Your task to perform on an android device: change the clock display to analog Image 0: 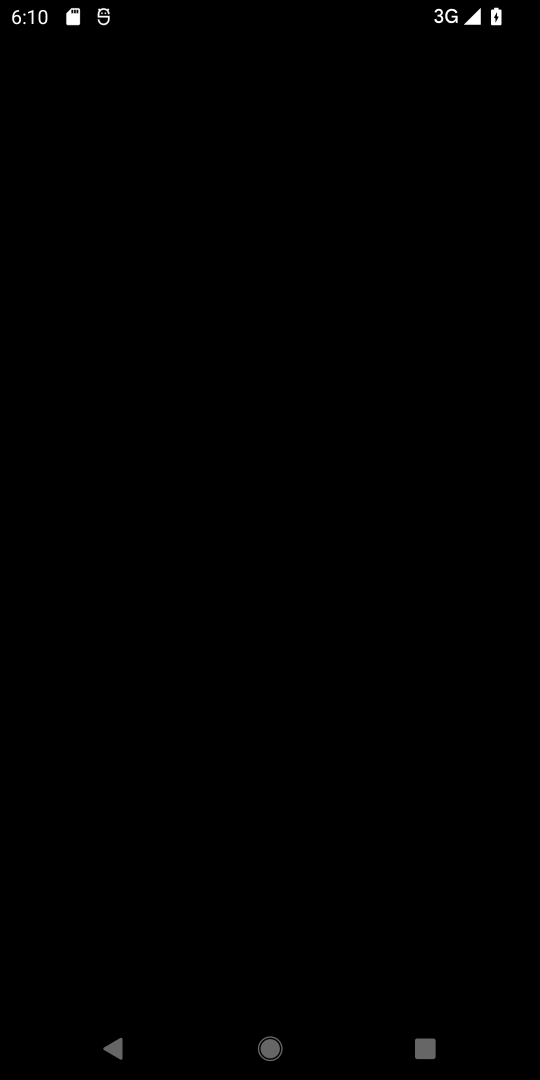
Step 0: press home button
Your task to perform on an android device: change the clock display to analog Image 1: 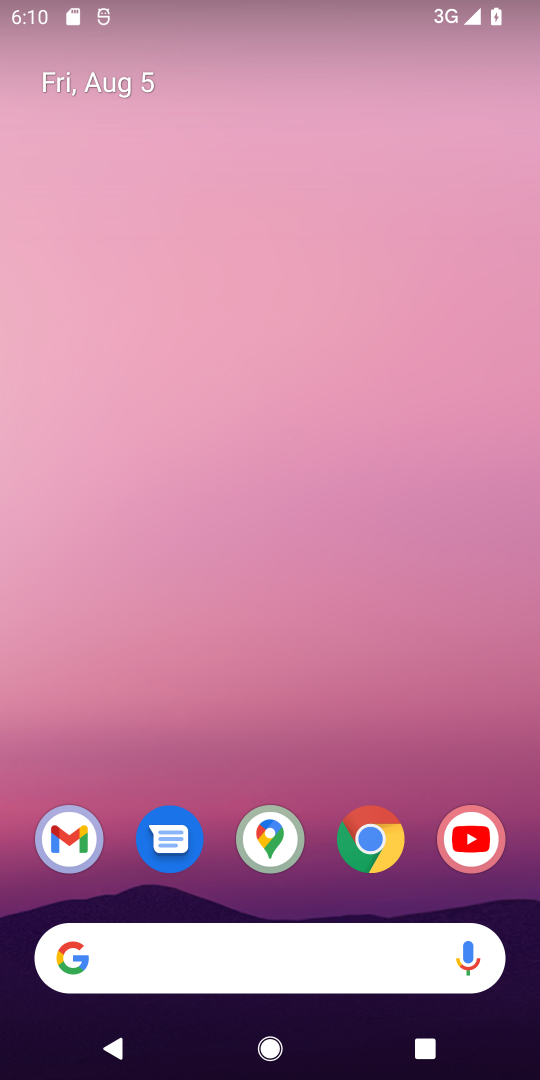
Step 1: drag from (180, 743) to (207, 45)
Your task to perform on an android device: change the clock display to analog Image 2: 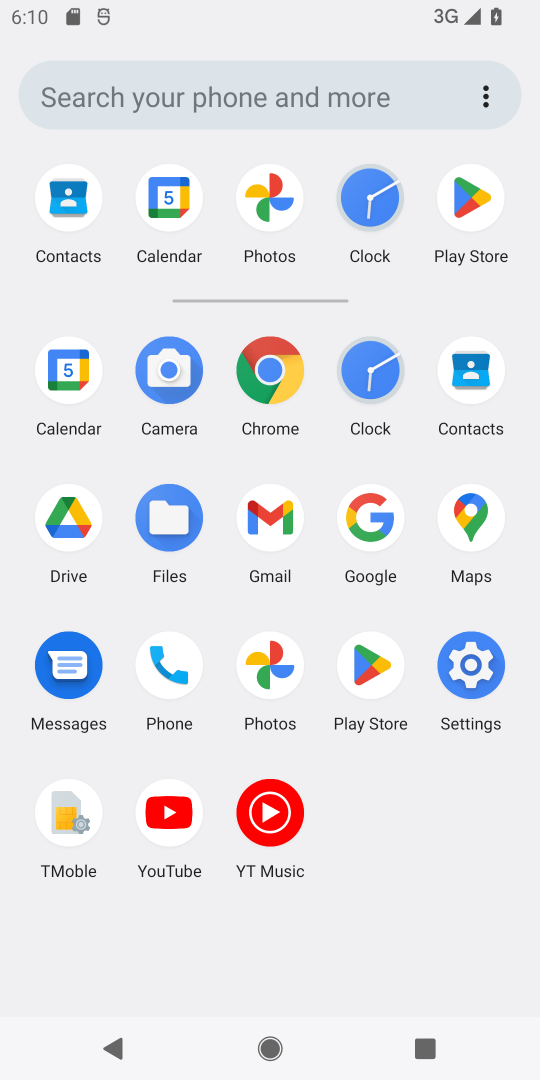
Step 2: click (353, 214)
Your task to perform on an android device: change the clock display to analog Image 3: 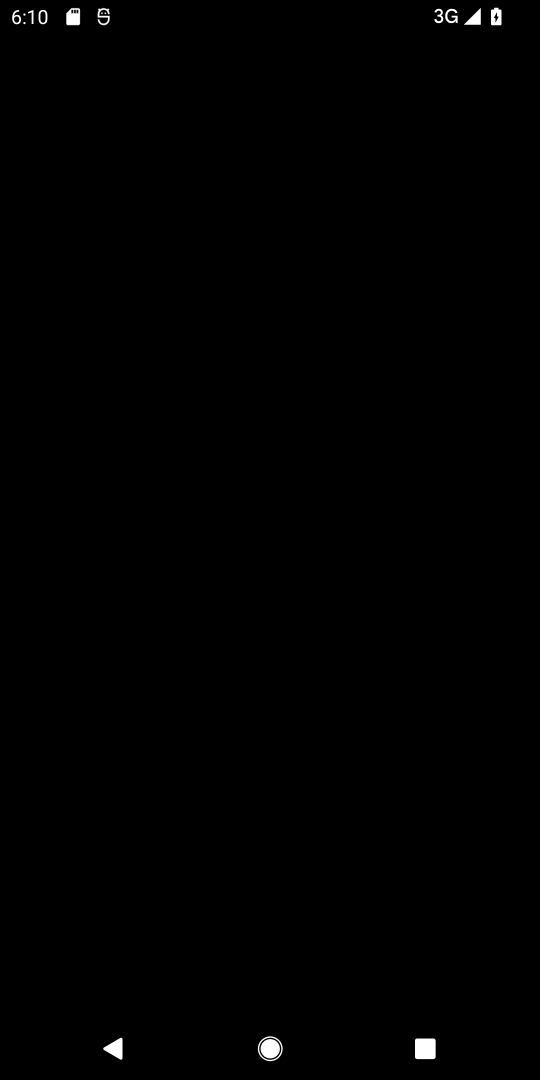
Step 3: click (502, 80)
Your task to perform on an android device: change the clock display to analog Image 4: 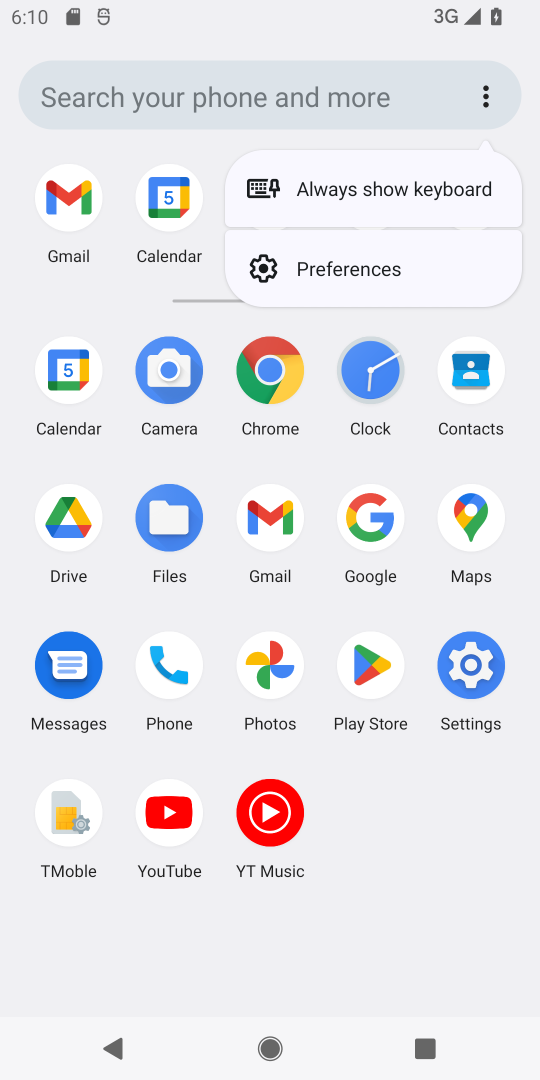
Step 4: click (331, 846)
Your task to perform on an android device: change the clock display to analog Image 5: 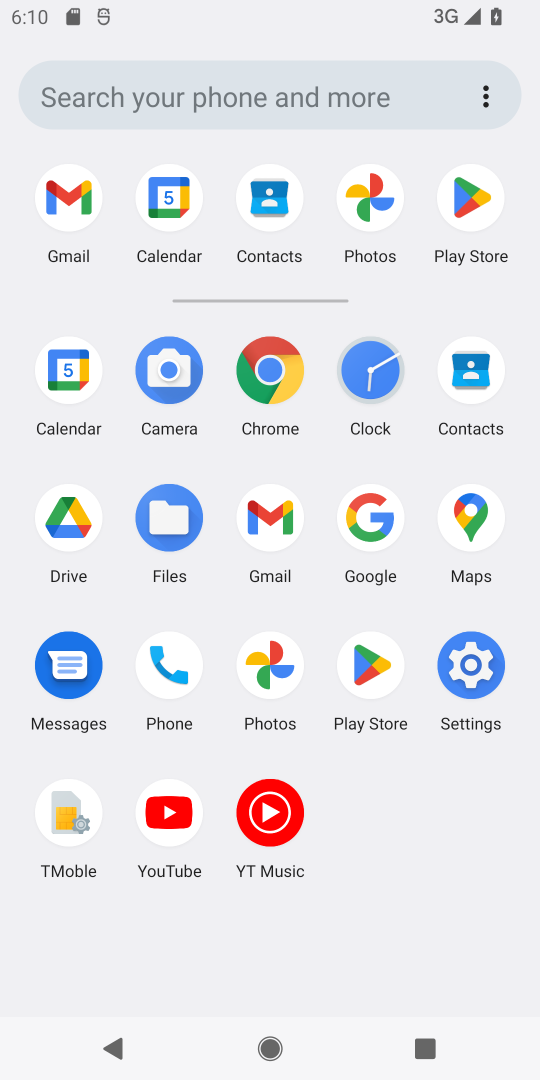
Step 5: click (367, 378)
Your task to perform on an android device: change the clock display to analog Image 6: 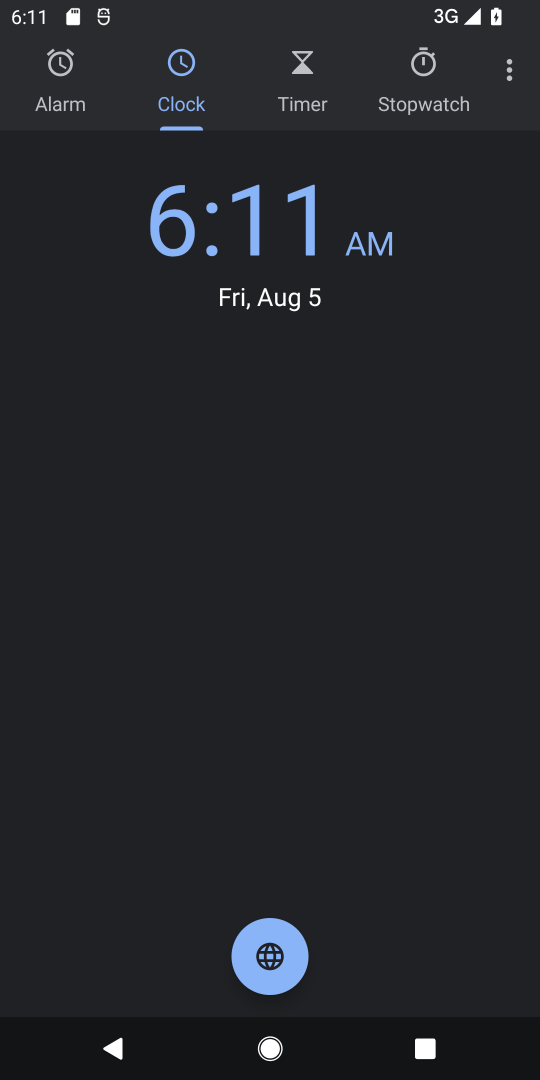
Step 6: click (501, 76)
Your task to perform on an android device: change the clock display to analog Image 7: 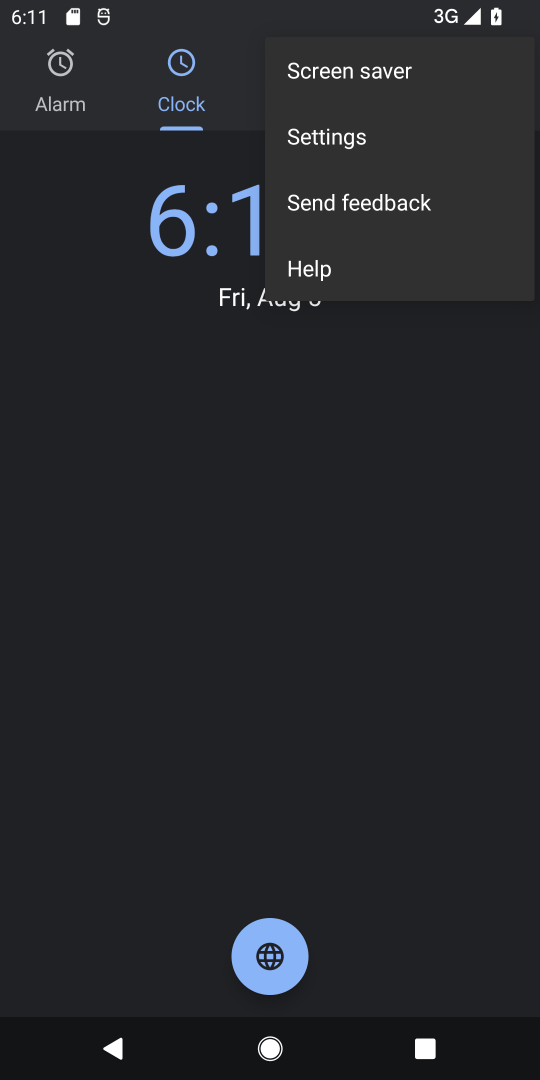
Step 7: click (383, 125)
Your task to perform on an android device: change the clock display to analog Image 8: 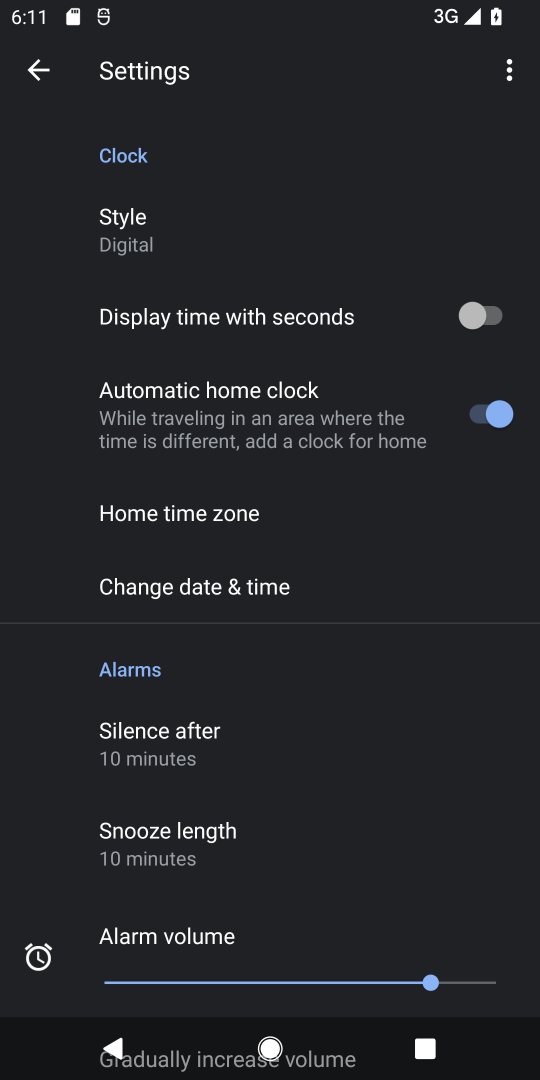
Step 8: click (202, 238)
Your task to perform on an android device: change the clock display to analog Image 9: 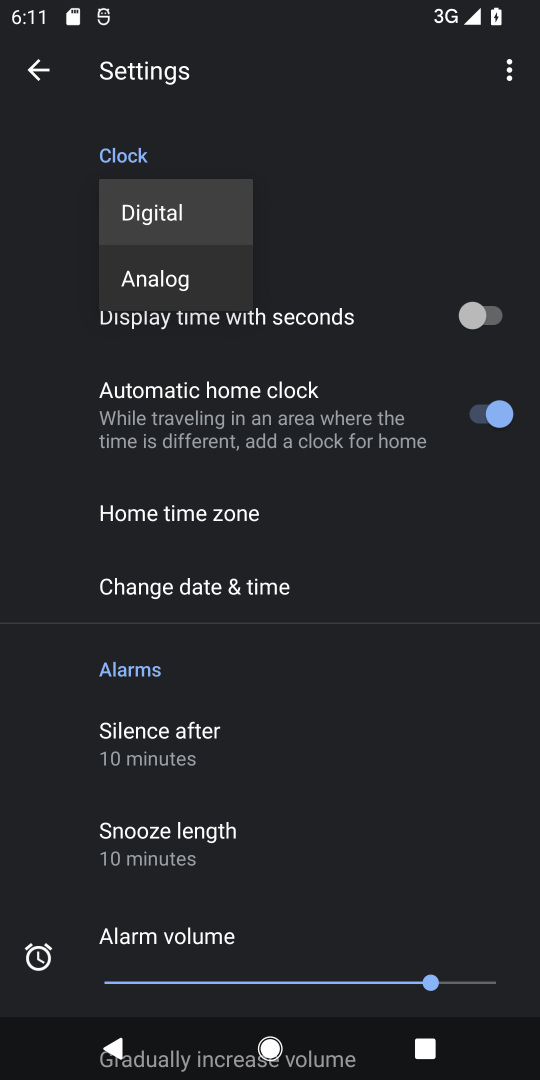
Step 9: click (162, 277)
Your task to perform on an android device: change the clock display to analog Image 10: 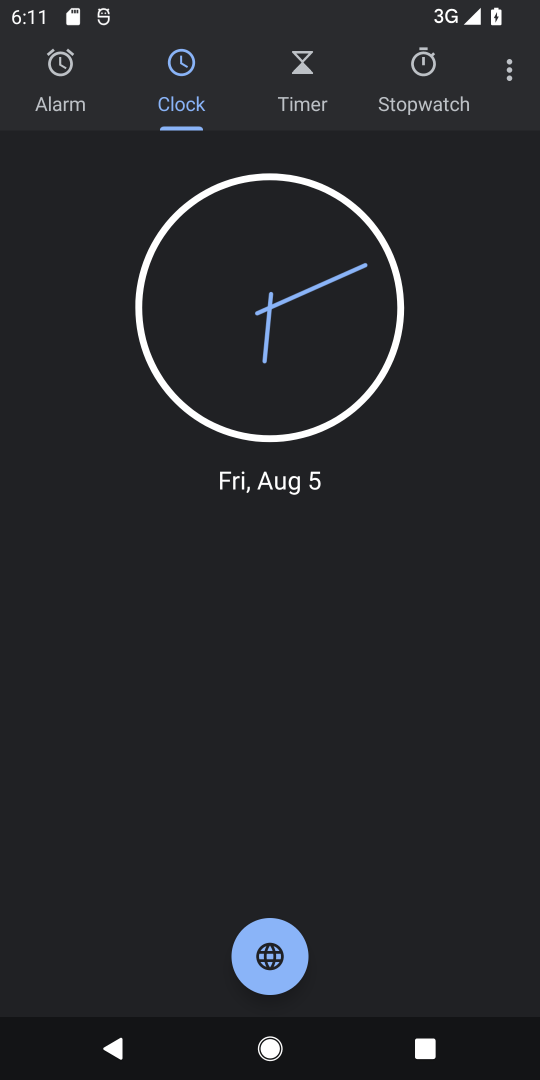
Step 10: click (509, 73)
Your task to perform on an android device: change the clock display to analog Image 11: 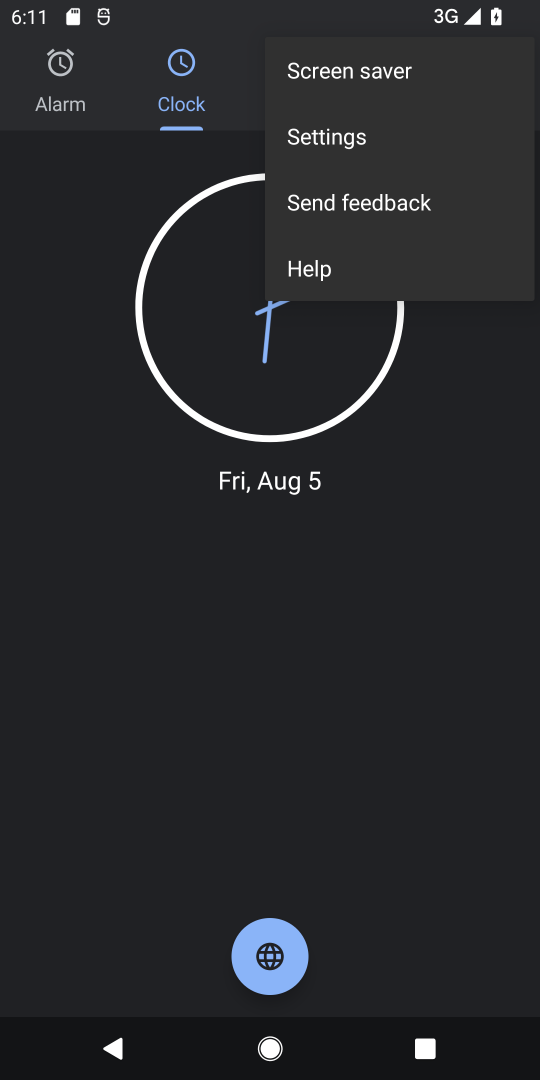
Step 11: click (381, 129)
Your task to perform on an android device: change the clock display to analog Image 12: 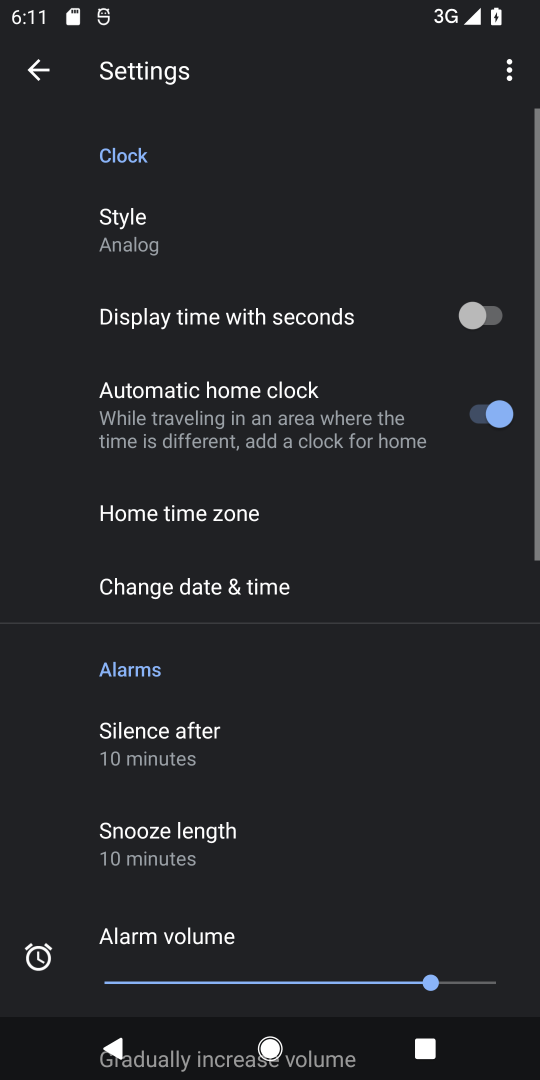
Step 12: click (166, 205)
Your task to perform on an android device: change the clock display to analog Image 13: 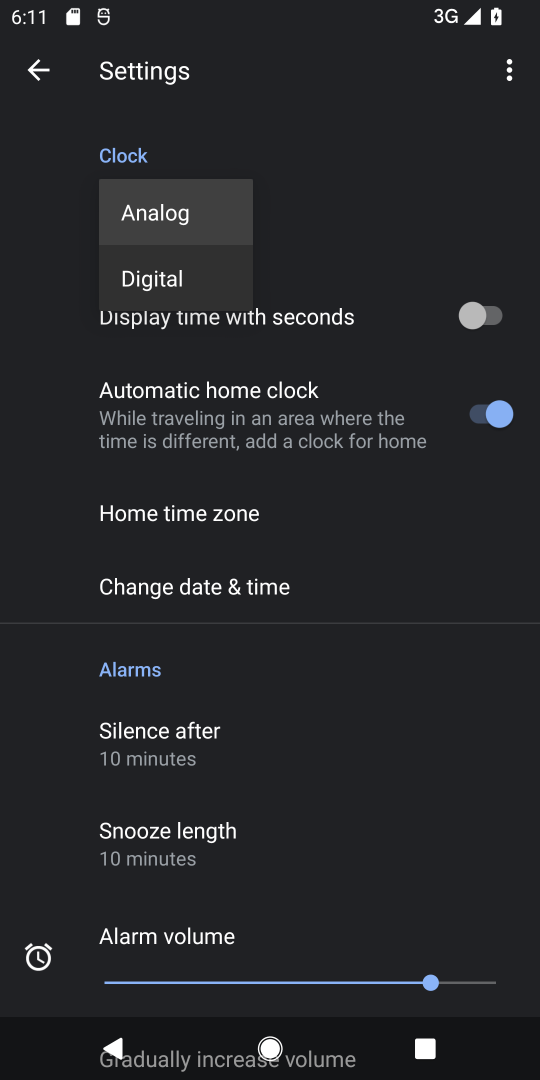
Step 13: task complete